Your task to perform on an android device: Go to Wikipedia Image 0: 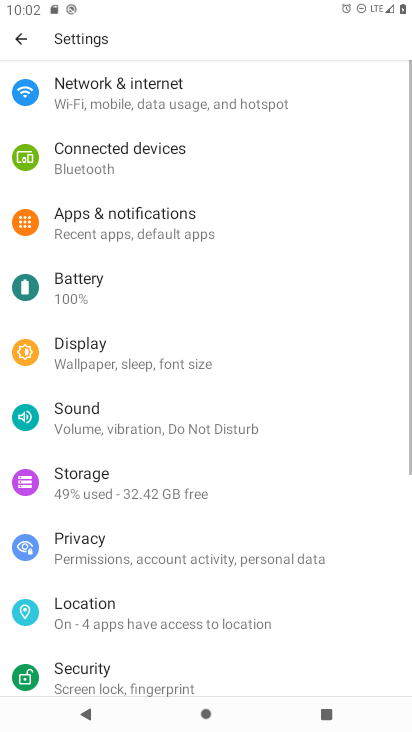
Step 0: press home button
Your task to perform on an android device: Go to Wikipedia Image 1: 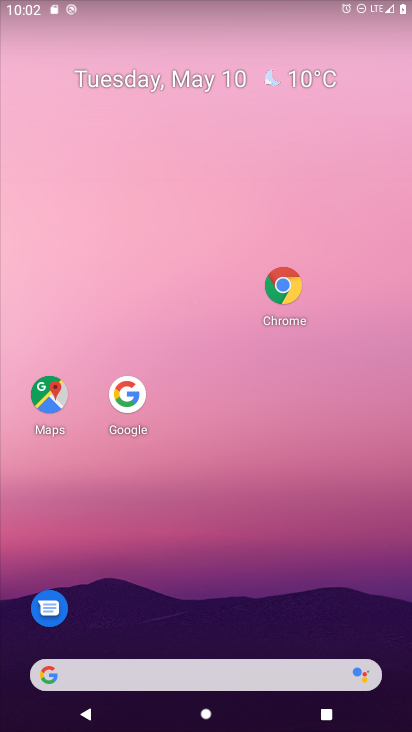
Step 1: drag from (129, 678) to (317, 80)
Your task to perform on an android device: Go to Wikipedia Image 2: 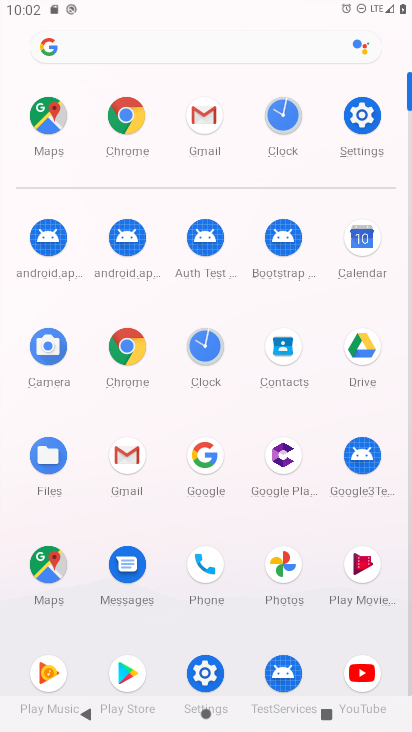
Step 2: click (124, 129)
Your task to perform on an android device: Go to Wikipedia Image 3: 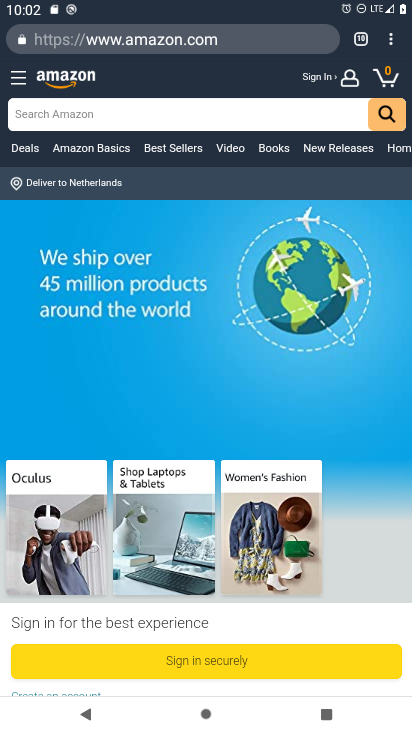
Step 3: drag from (393, 38) to (295, 70)
Your task to perform on an android device: Go to Wikipedia Image 4: 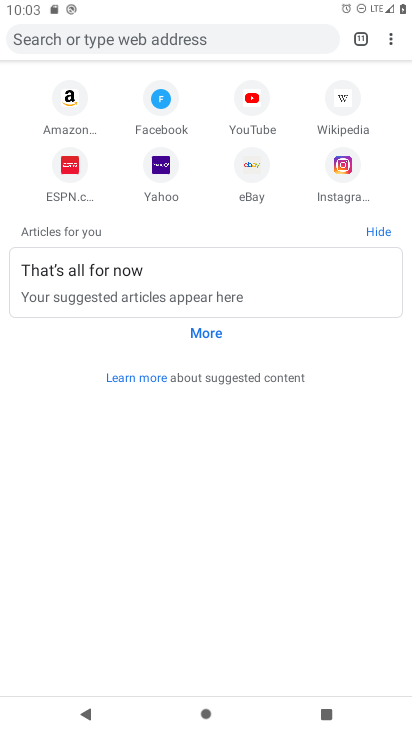
Step 4: click (332, 108)
Your task to perform on an android device: Go to Wikipedia Image 5: 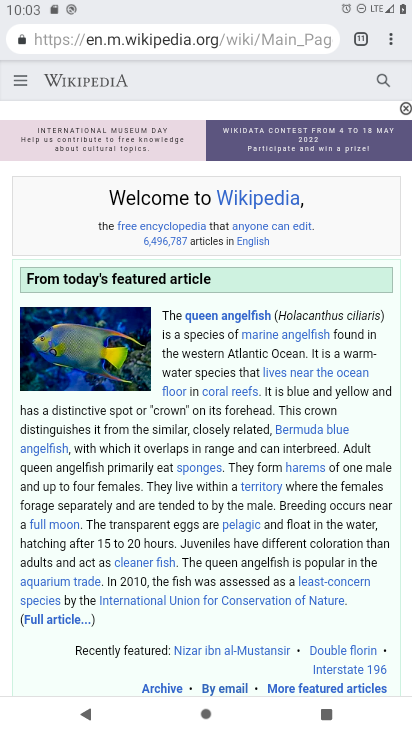
Step 5: task complete